Your task to perform on an android device: change the clock display to show seconds Image 0: 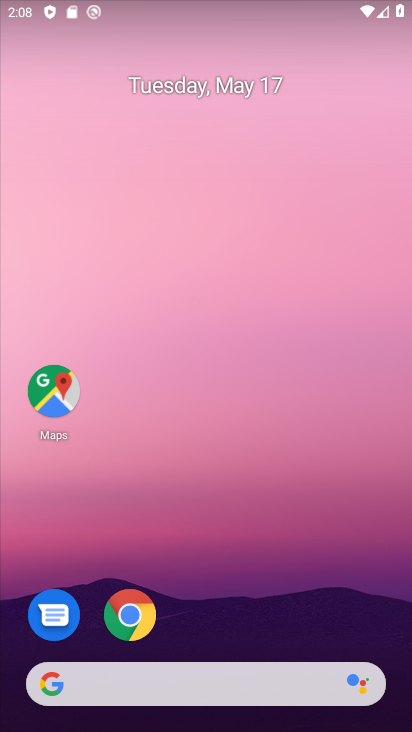
Step 0: drag from (206, 634) to (313, 46)
Your task to perform on an android device: change the clock display to show seconds Image 1: 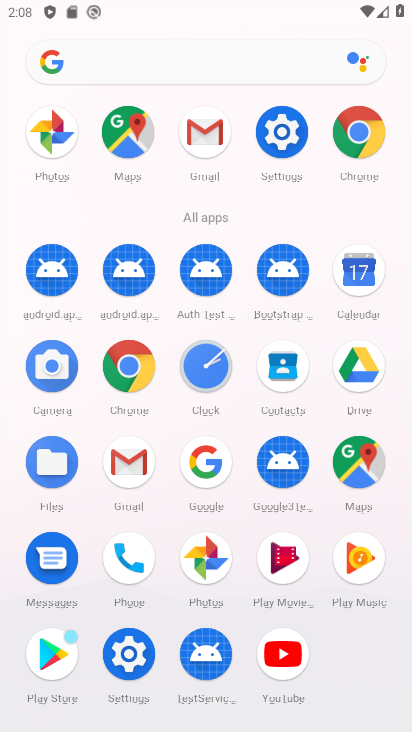
Step 1: click (200, 361)
Your task to perform on an android device: change the clock display to show seconds Image 2: 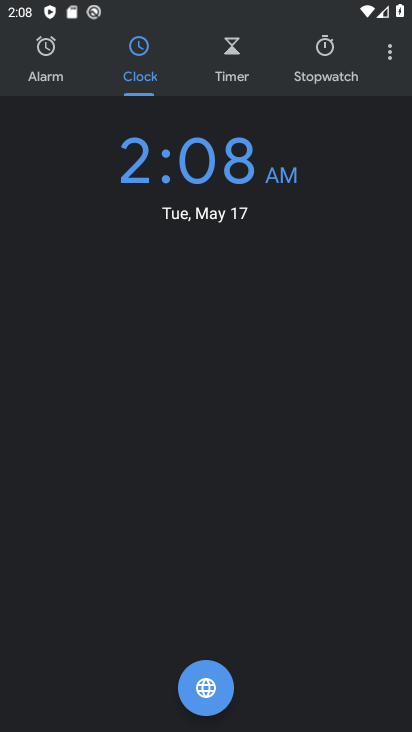
Step 2: click (388, 50)
Your task to perform on an android device: change the clock display to show seconds Image 3: 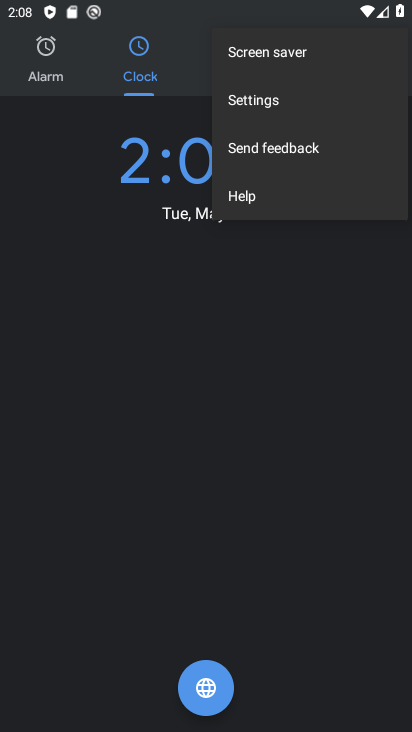
Step 3: click (289, 97)
Your task to perform on an android device: change the clock display to show seconds Image 4: 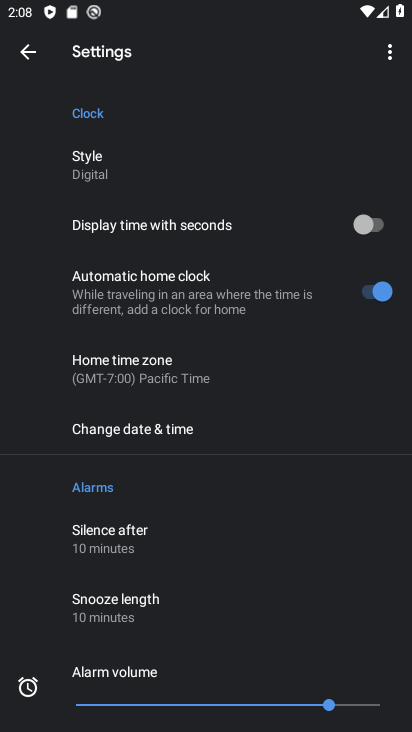
Step 4: click (366, 214)
Your task to perform on an android device: change the clock display to show seconds Image 5: 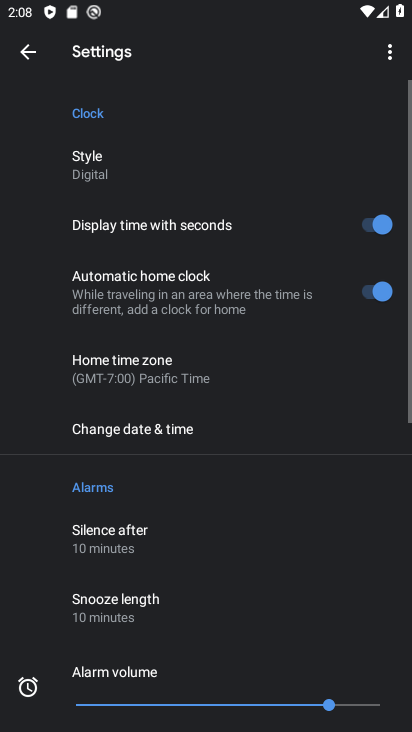
Step 5: task complete